Your task to perform on an android device: Open CNN.com Image 0: 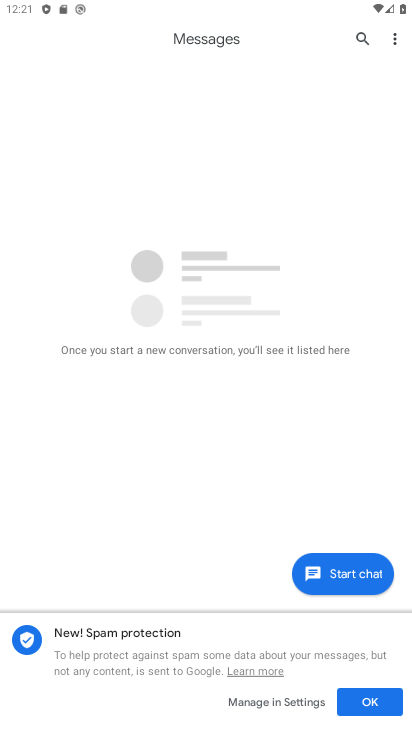
Step 0: press home button
Your task to perform on an android device: Open CNN.com Image 1: 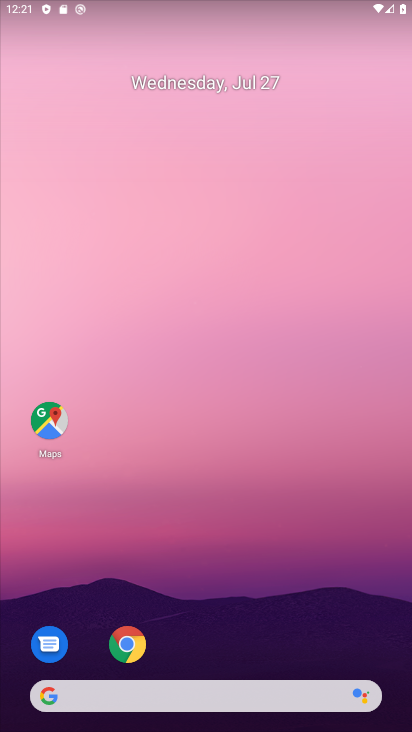
Step 1: click (131, 649)
Your task to perform on an android device: Open CNN.com Image 2: 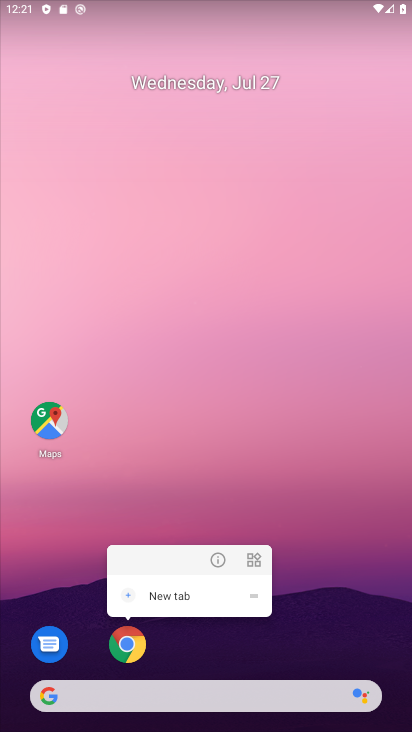
Step 2: click (134, 651)
Your task to perform on an android device: Open CNN.com Image 3: 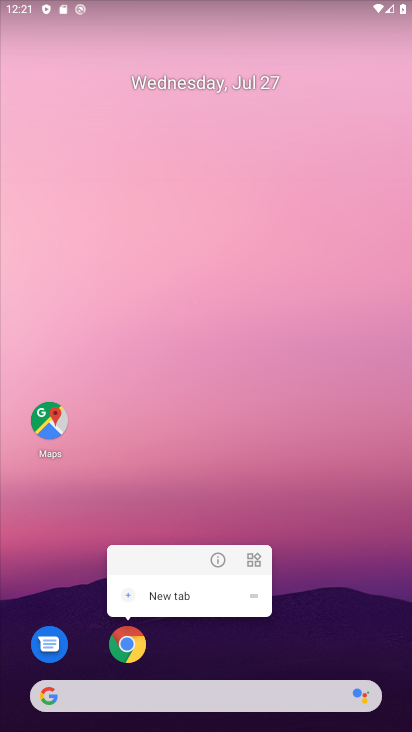
Step 3: click (133, 651)
Your task to perform on an android device: Open CNN.com Image 4: 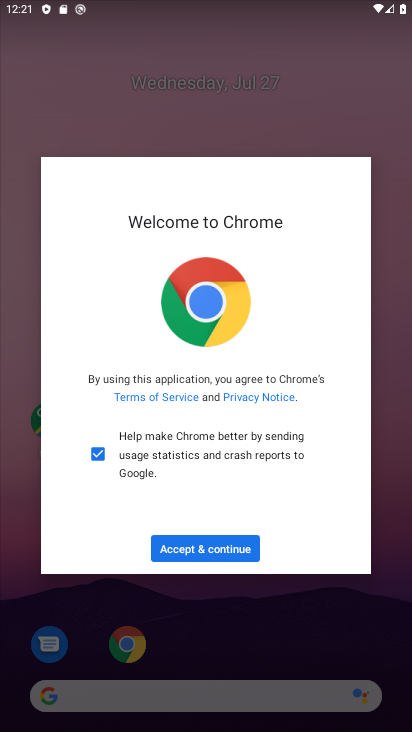
Step 4: click (199, 558)
Your task to perform on an android device: Open CNN.com Image 5: 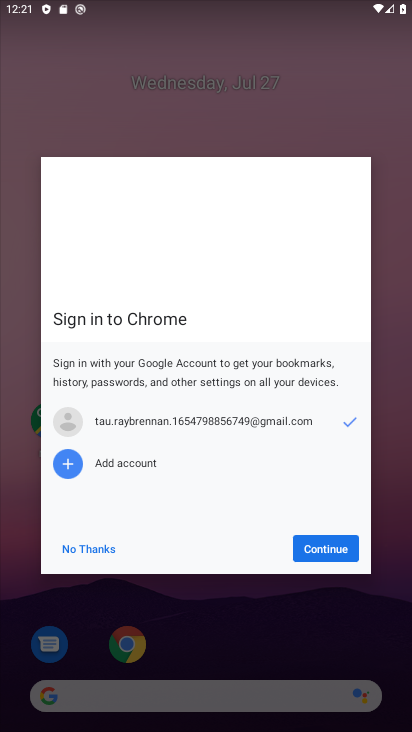
Step 5: click (339, 552)
Your task to perform on an android device: Open CNN.com Image 6: 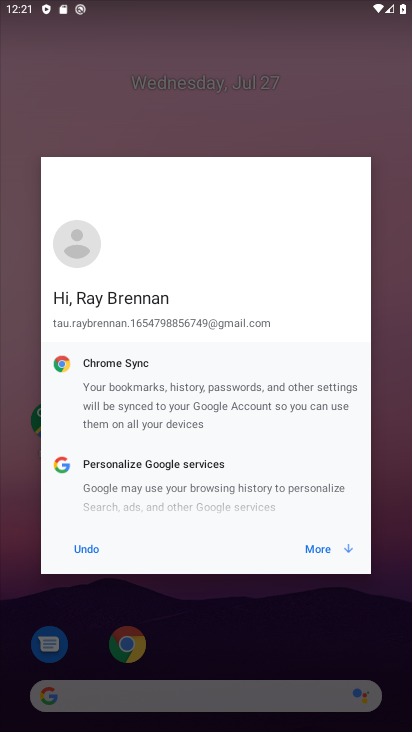
Step 6: click (324, 551)
Your task to perform on an android device: Open CNN.com Image 7: 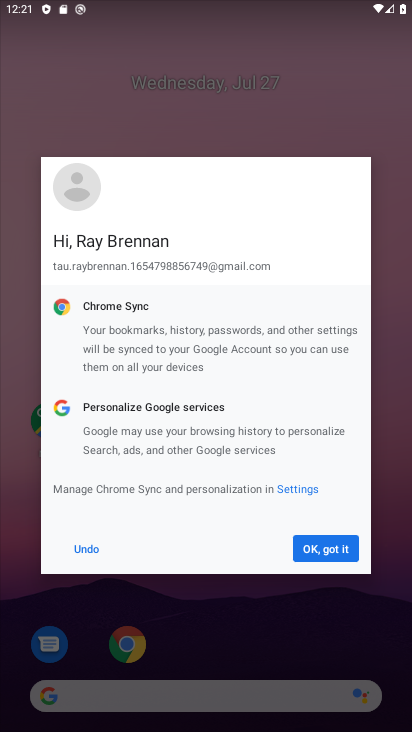
Step 7: click (324, 551)
Your task to perform on an android device: Open CNN.com Image 8: 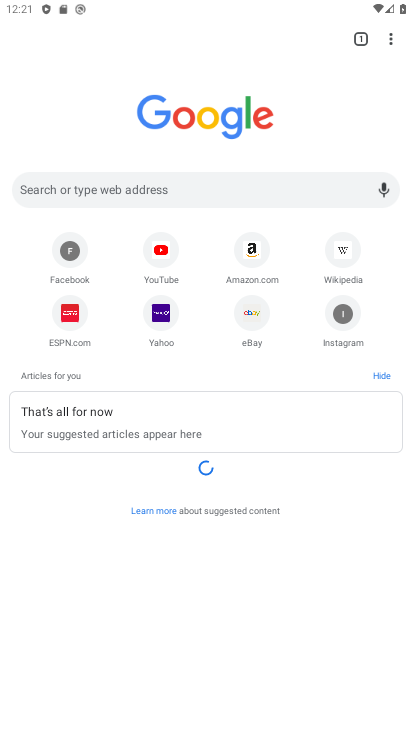
Step 8: click (201, 195)
Your task to perform on an android device: Open CNN.com Image 9: 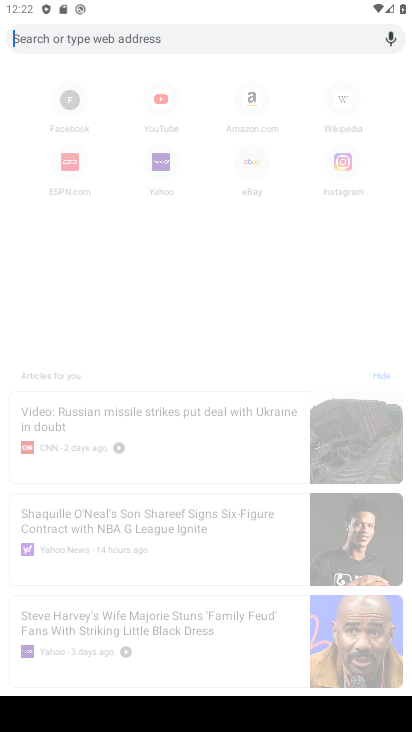
Step 9: type "CNN.com"
Your task to perform on an android device: Open CNN.com Image 10: 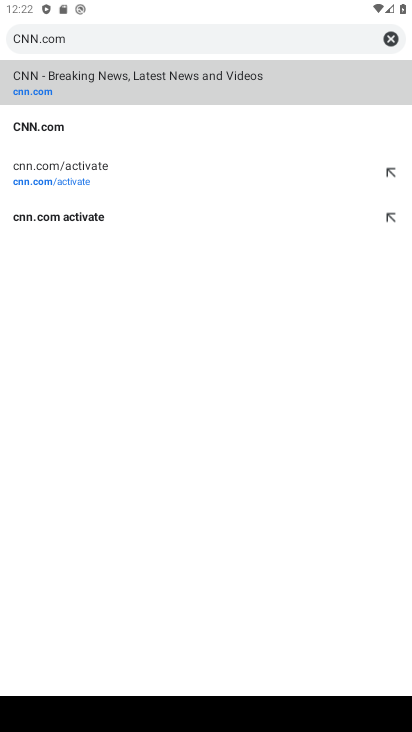
Step 10: click (138, 76)
Your task to perform on an android device: Open CNN.com Image 11: 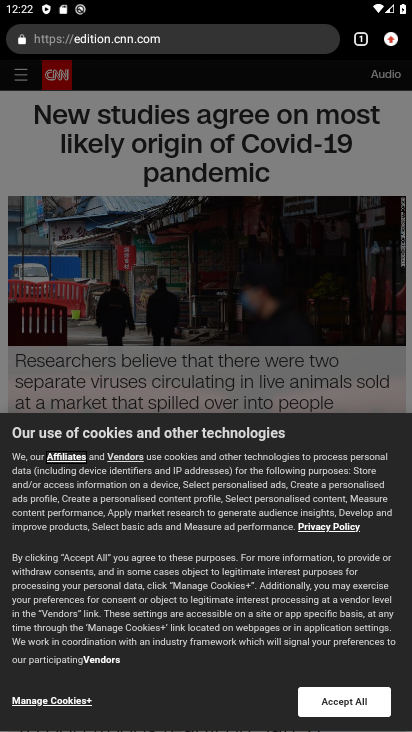
Step 11: task complete